Your task to perform on an android device: turn on location history Image 0: 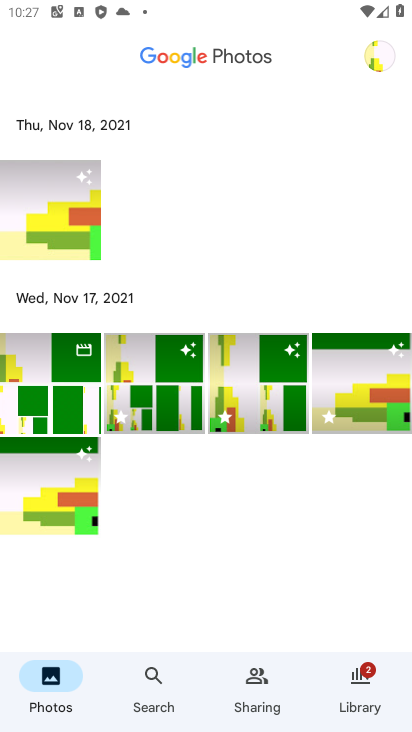
Step 0: press home button
Your task to perform on an android device: turn on location history Image 1: 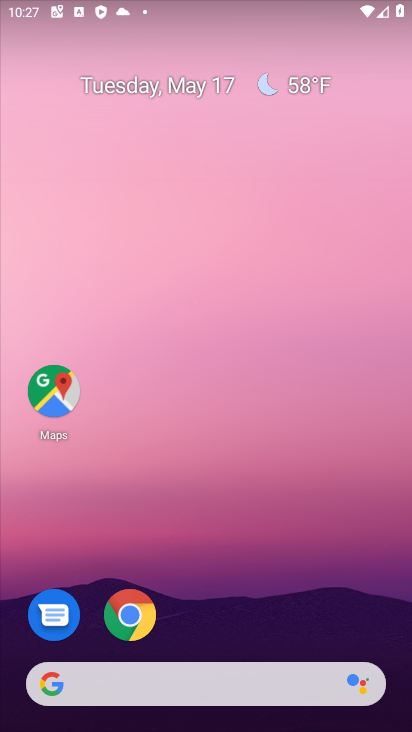
Step 1: click (54, 386)
Your task to perform on an android device: turn on location history Image 2: 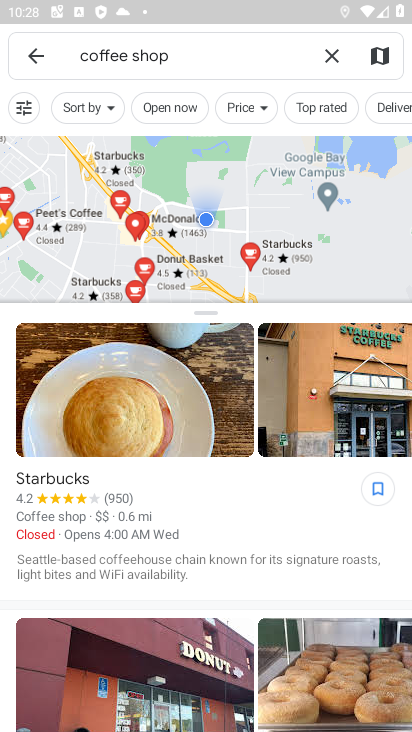
Step 2: click (327, 52)
Your task to perform on an android device: turn on location history Image 3: 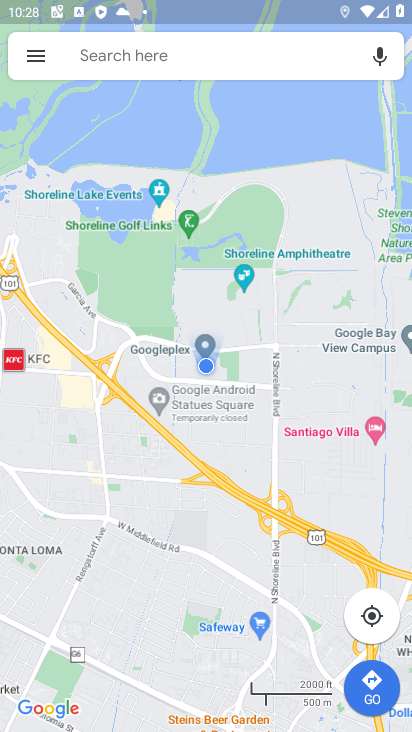
Step 3: click (37, 52)
Your task to perform on an android device: turn on location history Image 4: 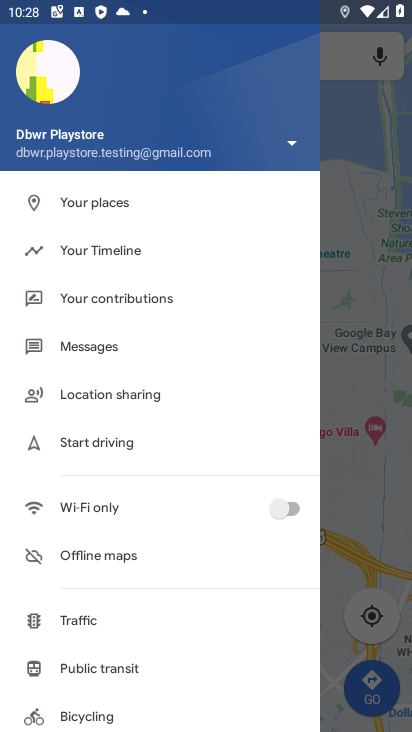
Step 4: drag from (180, 573) to (185, 288)
Your task to perform on an android device: turn on location history Image 5: 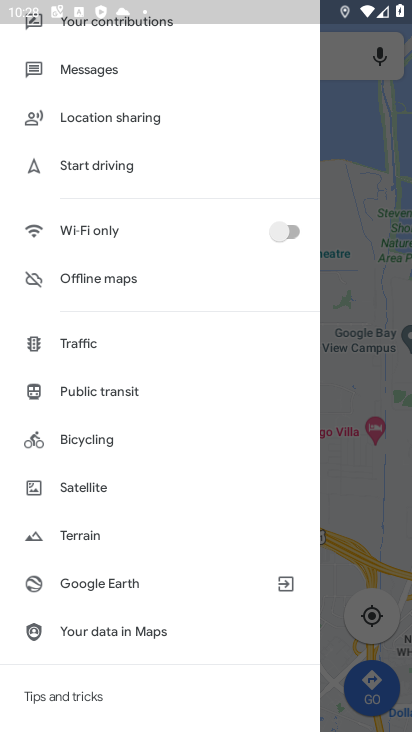
Step 5: drag from (148, 638) to (161, 350)
Your task to perform on an android device: turn on location history Image 6: 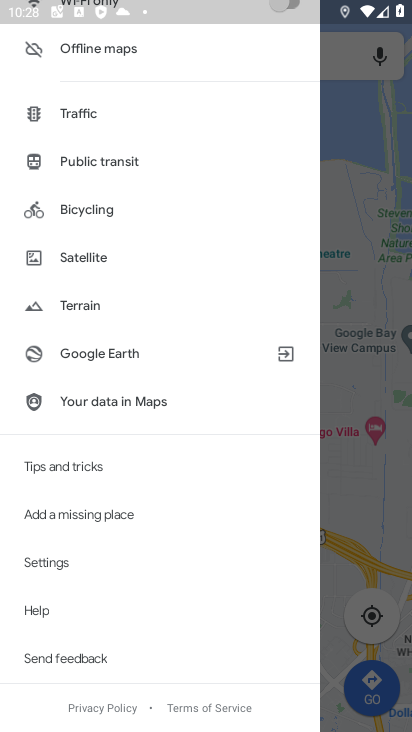
Step 6: click (43, 562)
Your task to perform on an android device: turn on location history Image 7: 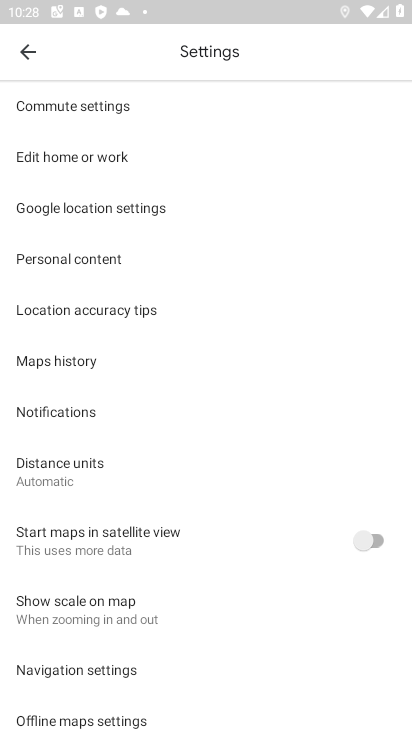
Step 7: click (85, 261)
Your task to perform on an android device: turn on location history Image 8: 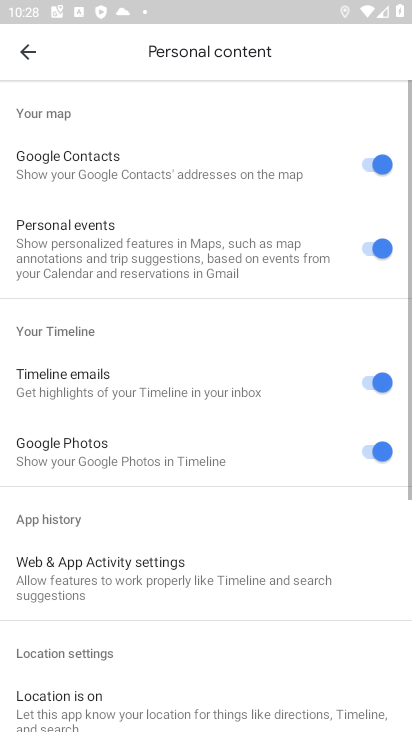
Step 8: drag from (296, 712) to (233, 233)
Your task to perform on an android device: turn on location history Image 9: 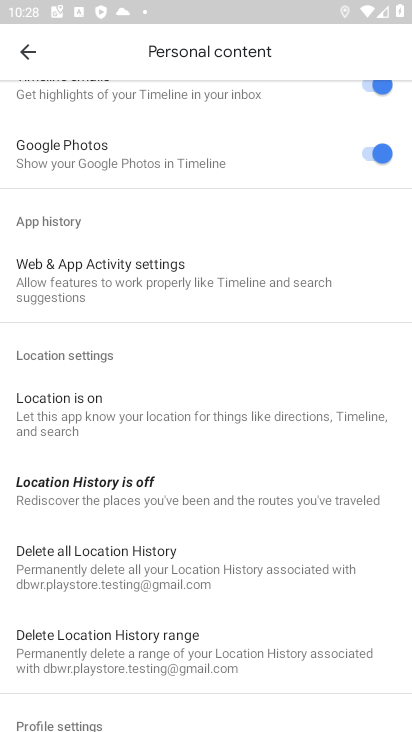
Step 9: click (94, 488)
Your task to perform on an android device: turn on location history Image 10: 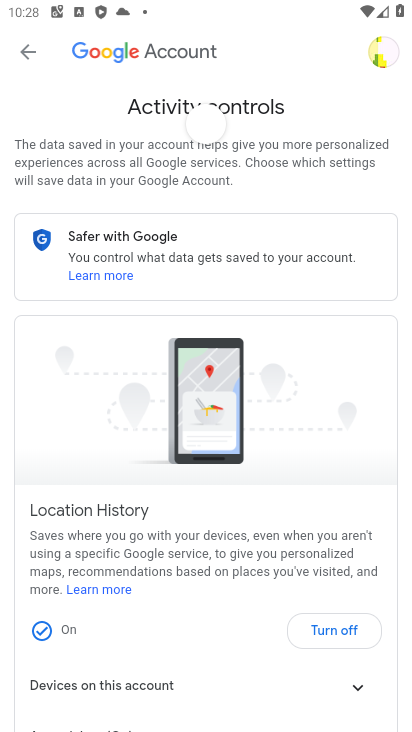
Step 10: task complete